Your task to perform on an android device: Go to notification settings Image 0: 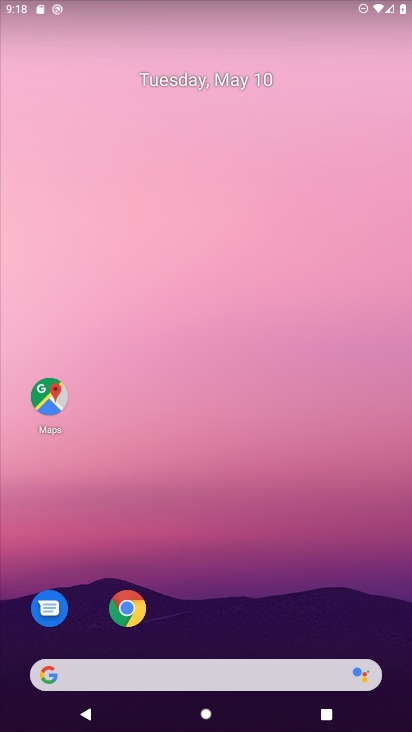
Step 0: drag from (391, 627) to (266, 51)
Your task to perform on an android device: Go to notification settings Image 1: 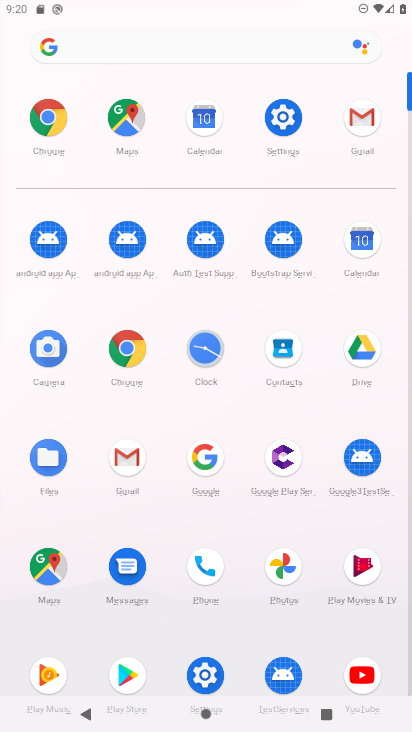
Step 1: click (217, 660)
Your task to perform on an android device: Go to notification settings Image 2: 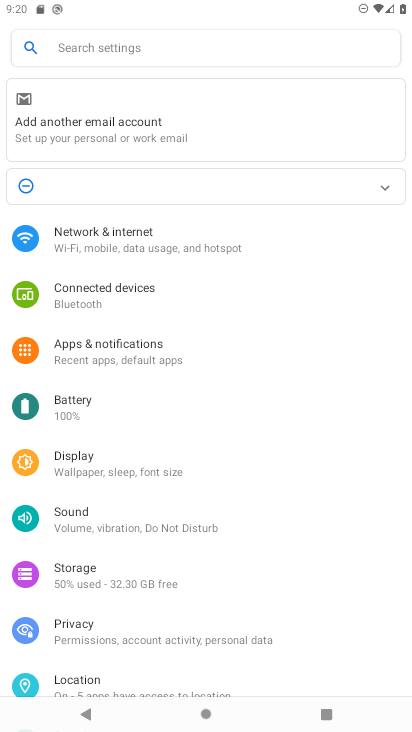
Step 2: click (173, 363)
Your task to perform on an android device: Go to notification settings Image 3: 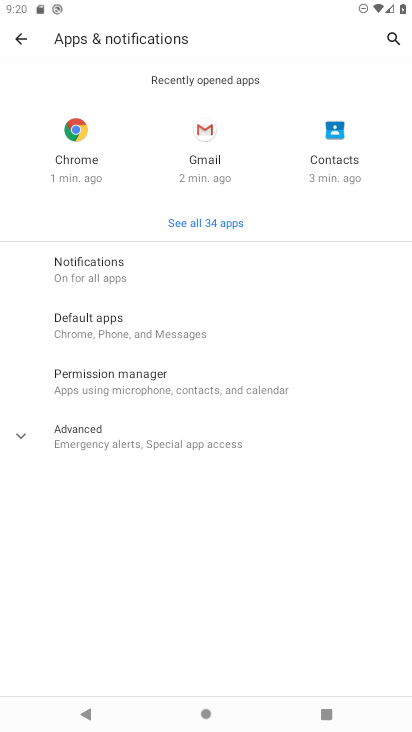
Step 3: click (124, 284)
Your task to perform on an android device: Go to notification settings Image 4: 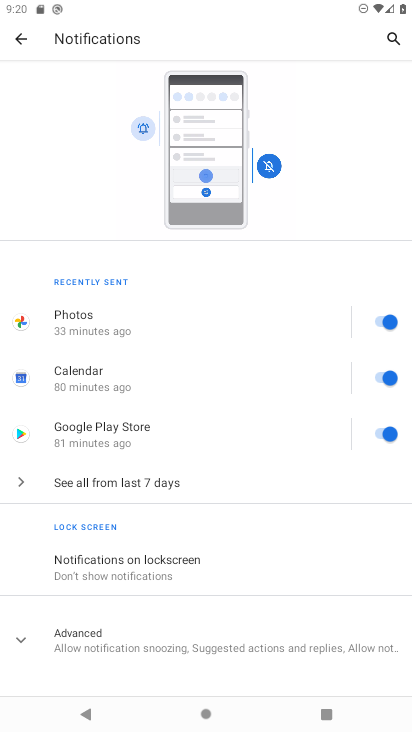
Step 4: task complete